Your task to perform on an android device: check battery use Image 0: 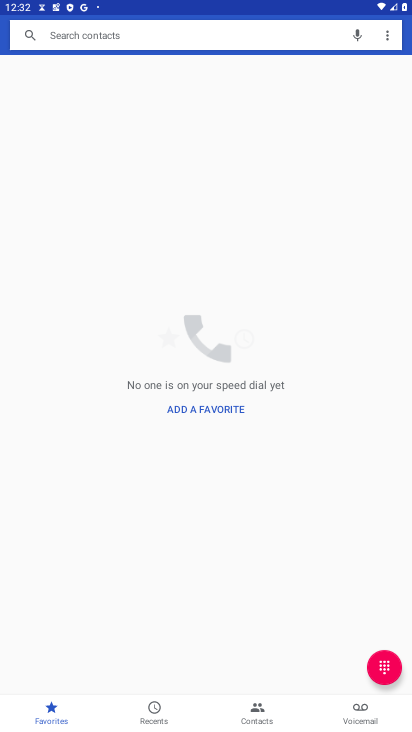
Step 0: press home button
Your task to perform on an android device: check battery use Image 1: 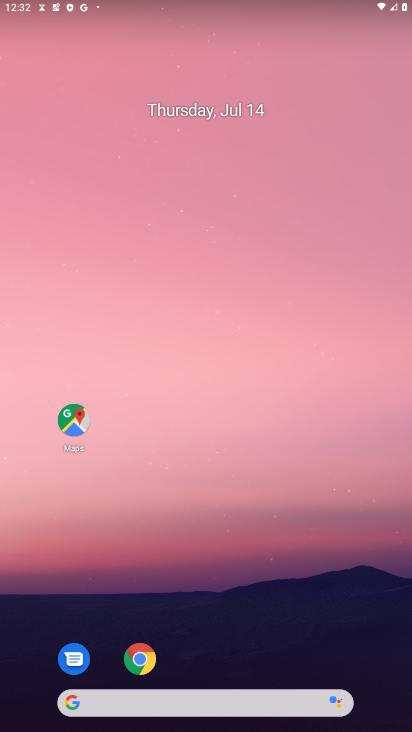
Step 1: drag from (18, 667) to (298, 7)
Your task to perform on an android device: check battery use Image 2: 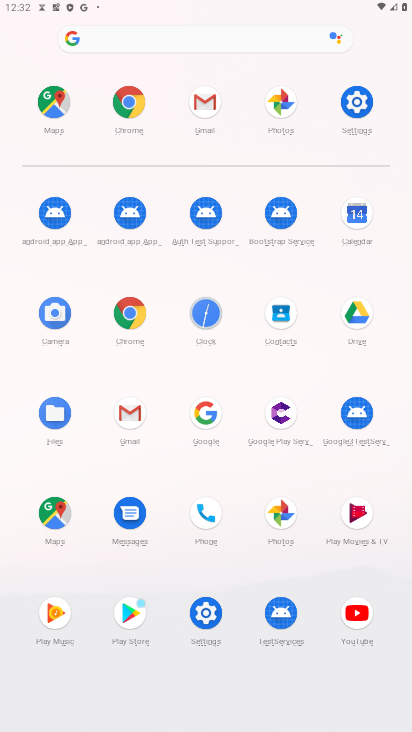
Step 2: click (203, 611)
Your task to perform on an android device: check battery use Image 3: 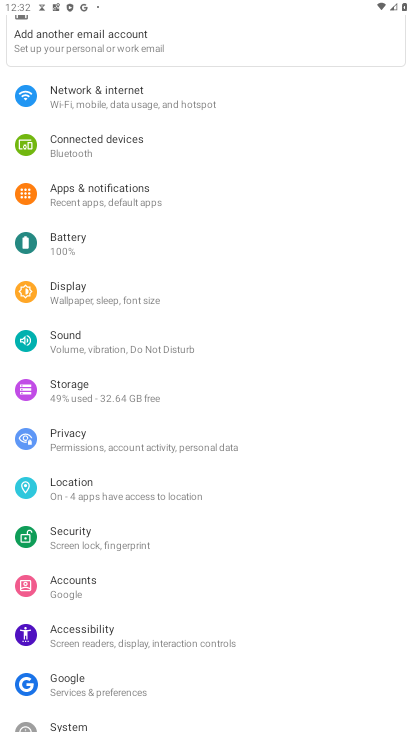
Step 3: click (80, 246)
Your task to perform on an android device: check battery use Image 4: 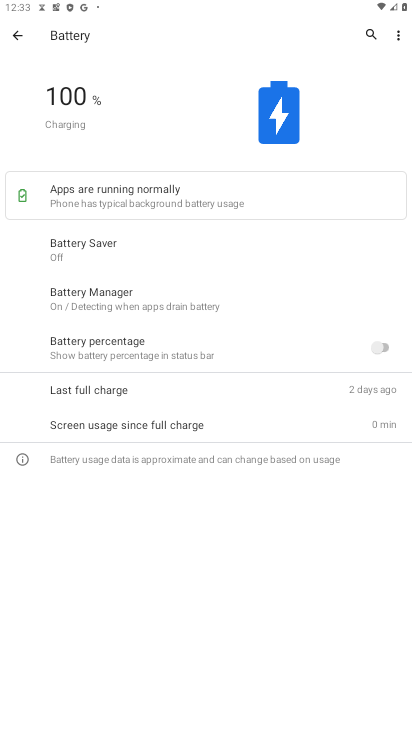
Step 4: task complete